Your task to perform on an android device: Open my contact list Image 0: 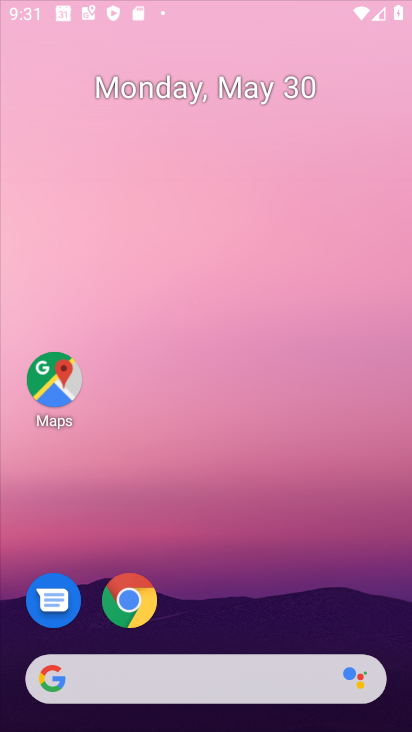
Step 0: press home button
Your task to perform on an android device: Open my contact list Image 1: 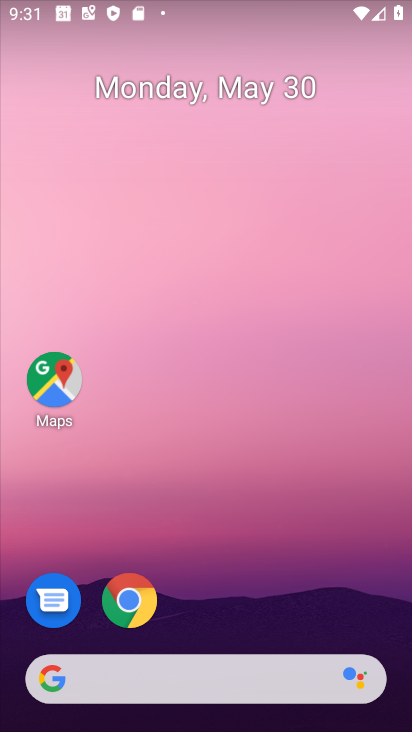
Step 1: drag from (287, 588) to (214, 154)
Your task to perform on an android device: Open my contact list Image 2: 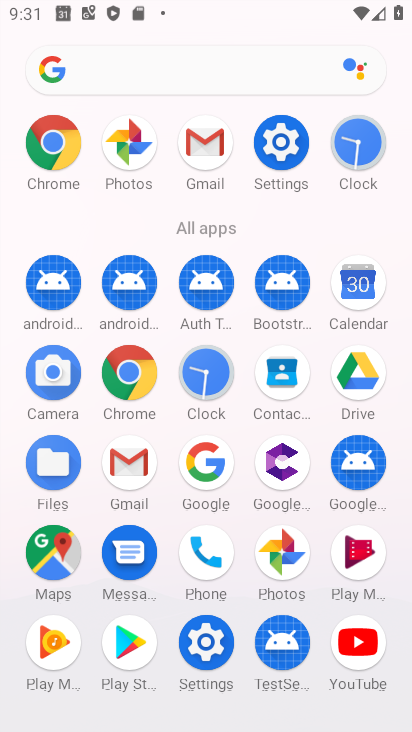
Step 2: click (290, 381)
Your task to perform on an android device: Open my contact list Image 3: 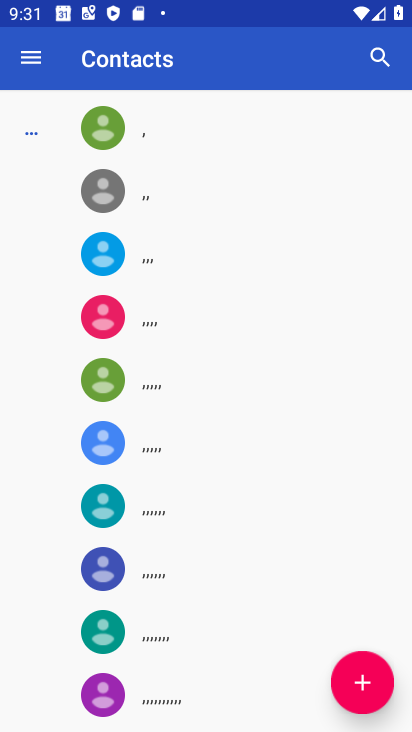
Step 3: task complete